Your task to perform on an android device: change the clock display to digital Image 0: 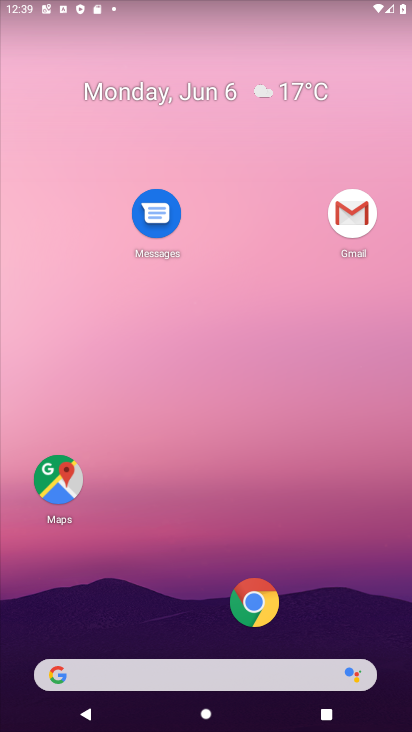
Step 0: drag from (358, 603) to (309, 199)
Your task to perform on an android device: change the clock display to digital Image 1: 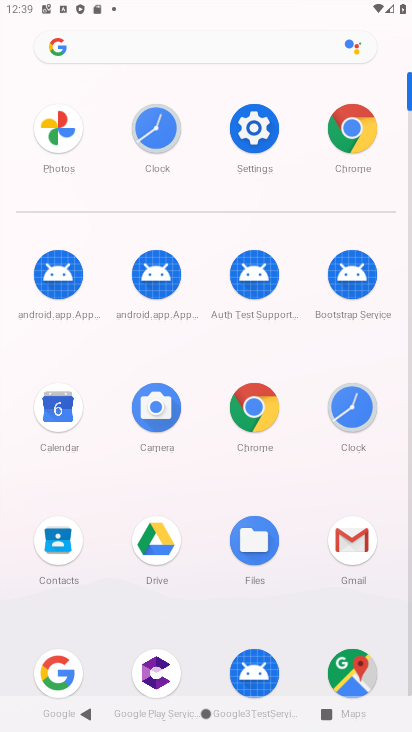
Step 1: click (149, 144)
Your task to perform on an android device: change the clock display to digital Image 2: 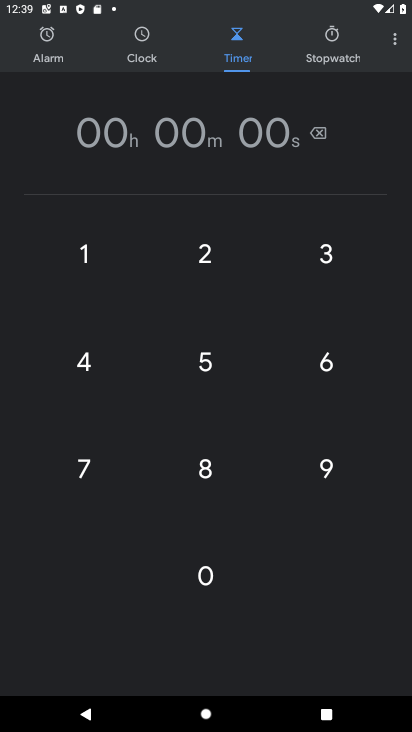
Step 2: click (392, 44)
Your task to perform on an android device: change the clock display to digital Image 3: 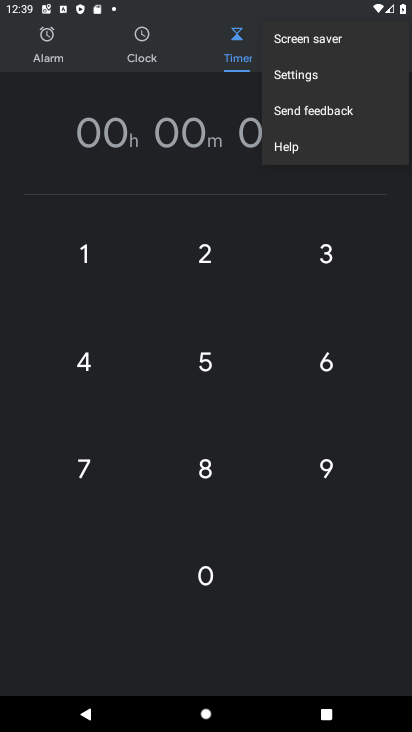
Step 3: click (311, 69)
Your task to perform on an android device: change the clock display to digital Image 4: 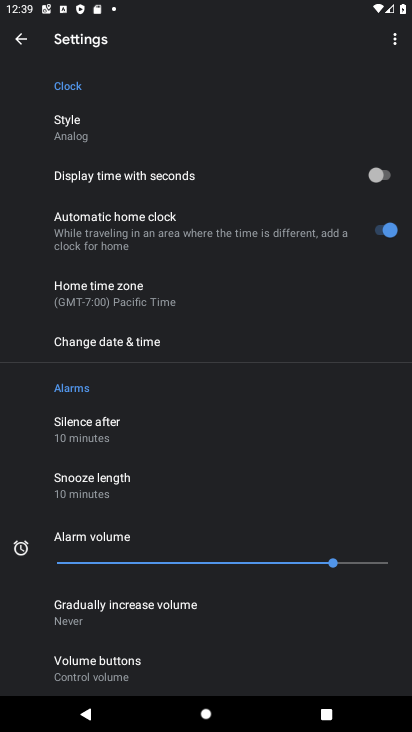
Step 4: click (110, 127)
Your task to perform on an android device: change the clock display to digital Image 5: 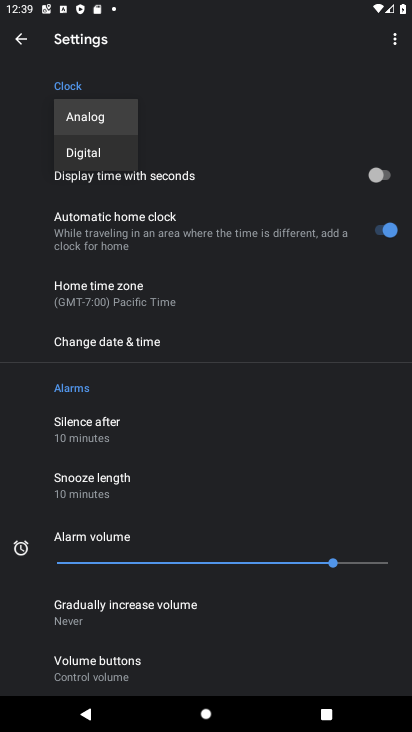
Step 5: click (93, 150)
Your task to perform on an android device: change the clock display to digital Image 6: 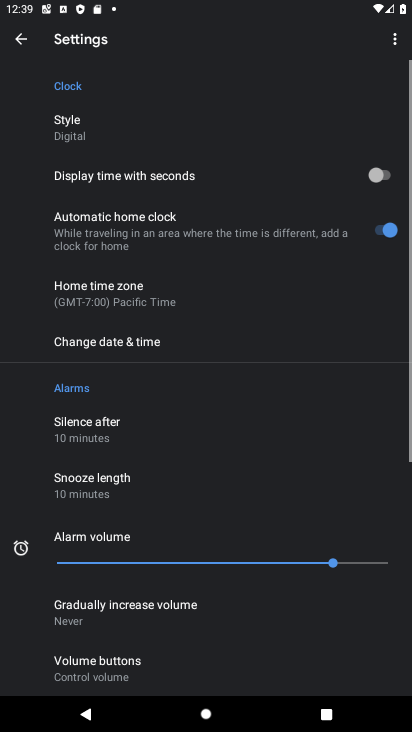
Step 6: task complete